Your task to perform on an android device: Turn on the flashlight Image 0: 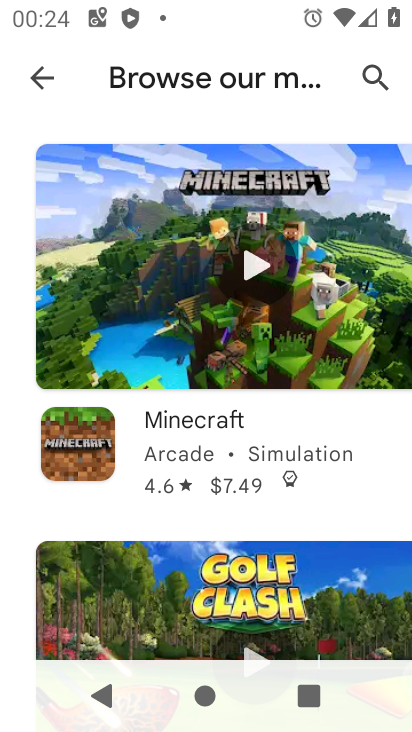
Step 0: press home button
Your task to perform on an android device: Turn on the flashlight Image 1: 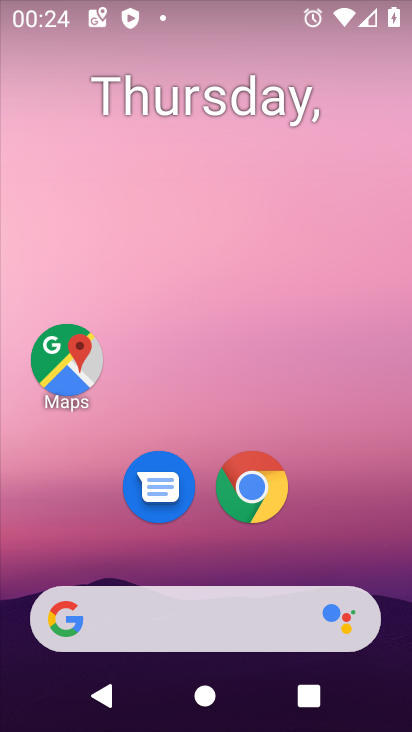
Step 1: task complete